Your task to perform on an android device: Open Google Chrome and click the shortcut for Amazon.com Image 0: 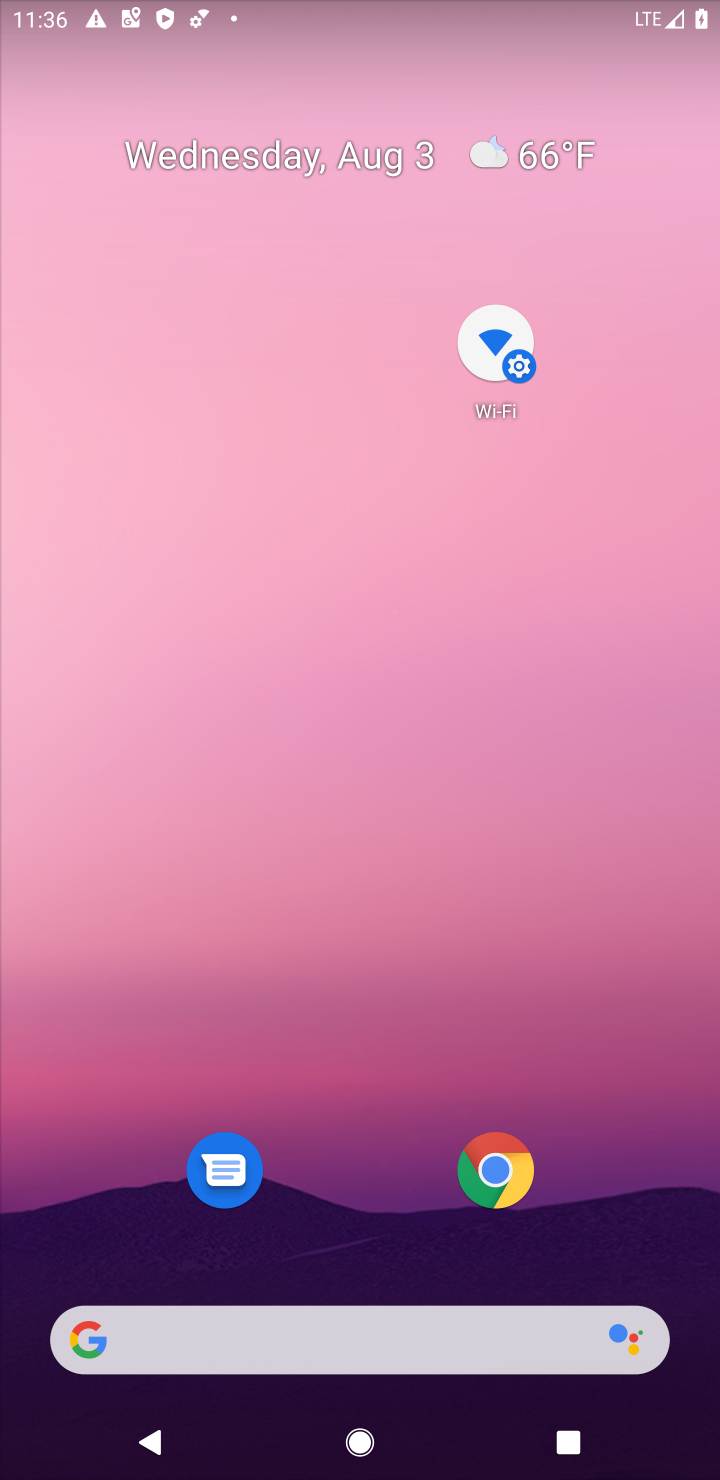
Step 0: drag from (343, 873) to (349, 338)
Your task to perform on an android device: Open Google Chrome and click the shortcut for Amazon.com Image 1: 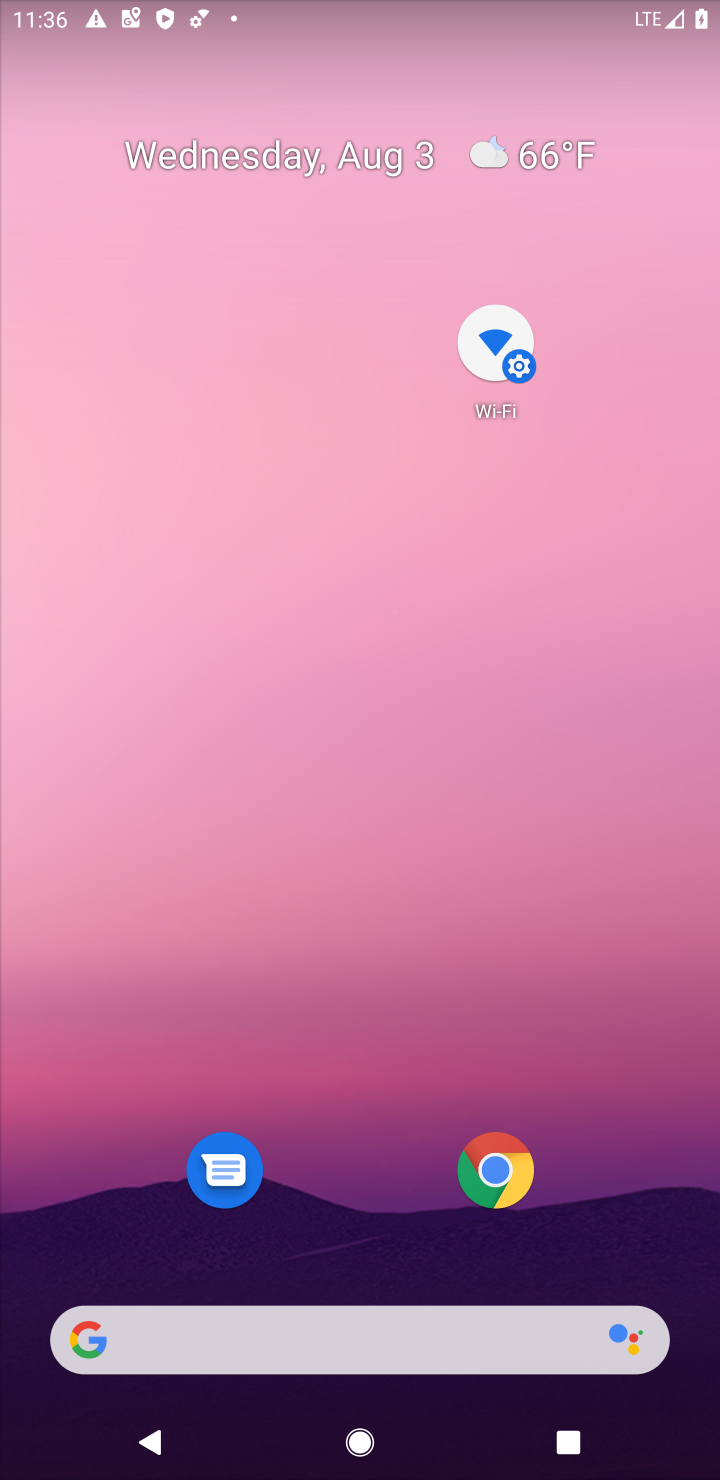
Step 1: click (497, 1165)
Your task to perform on an android device: Open Google Chrome and click the shortcut for Amazon.com Image 2: 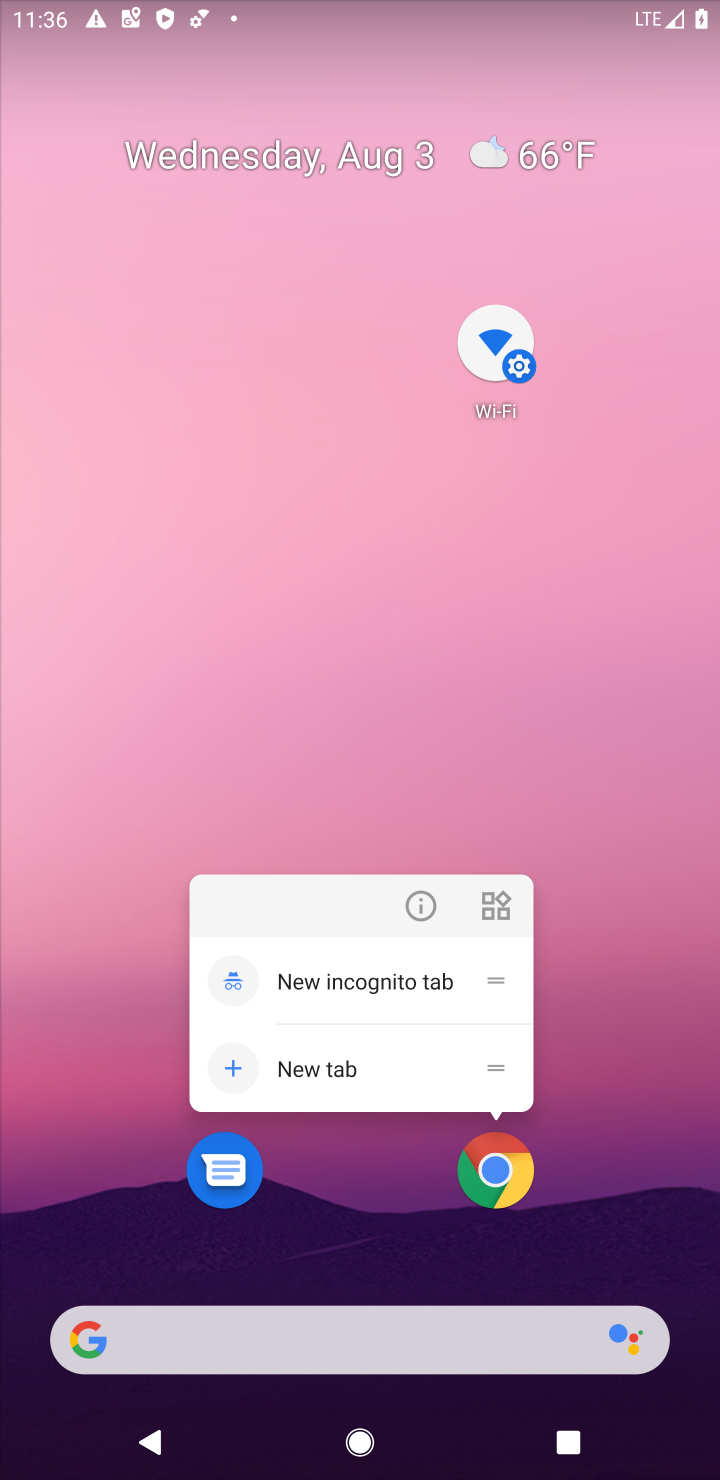
Step 2: click (435, 896)
Your task to perform on an android device: Open Google Chrome and click the shortcut for Amazon.com Image 3: 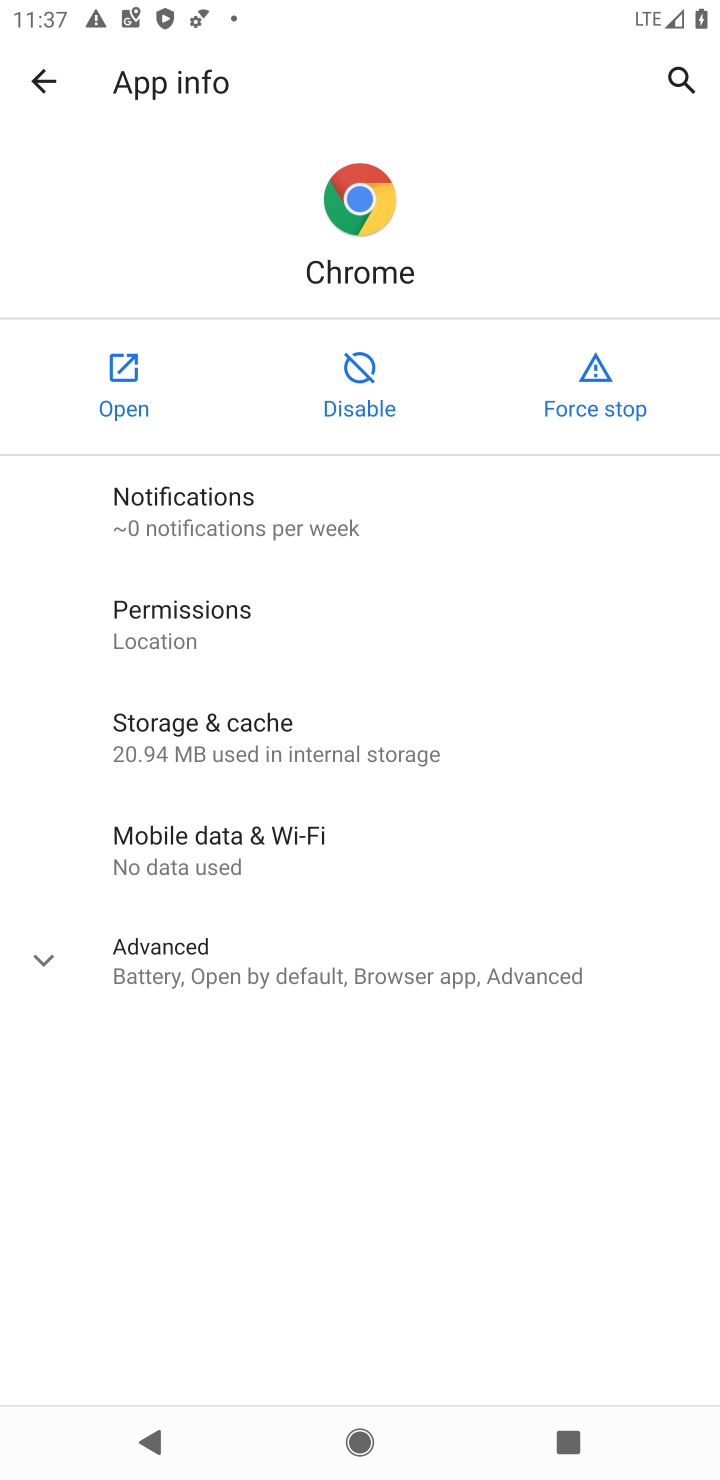
Step 3: click (127, 407)
Your task to perform on an android device: Open Google Chrome and click the shortcut for Amazon.com Image 4: 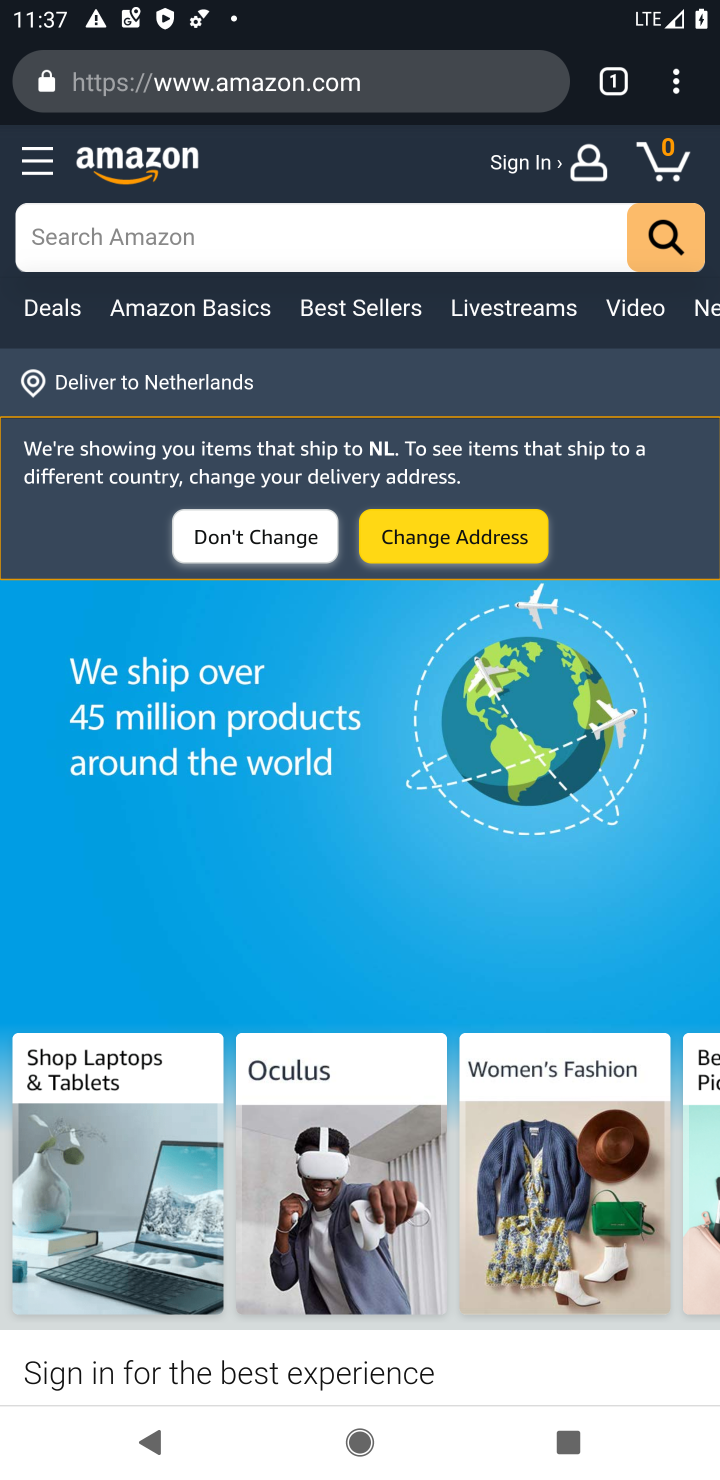
Step 4: task complete